Your task to perform on an android device: check battery use Image 0: 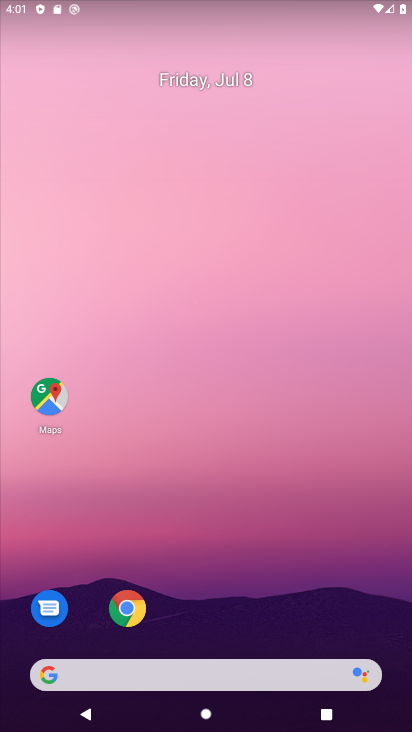
Step 0: press home button
Your task to perform on an android device: check battery use Image 1: 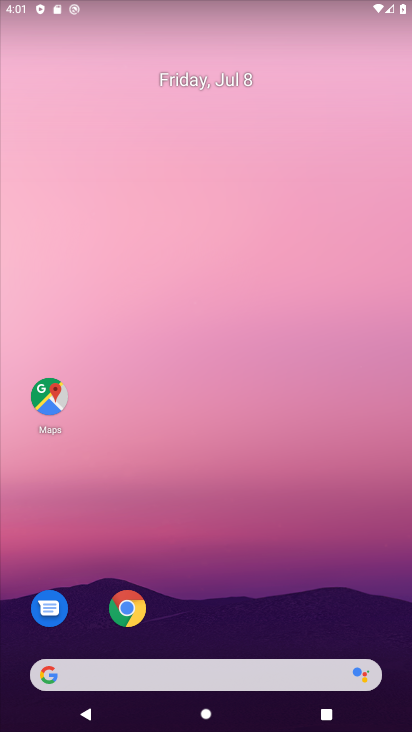
Step 1: drag from (216, 636) to (276, 157)
Your task to perform on an android device: check battery use Image 2: 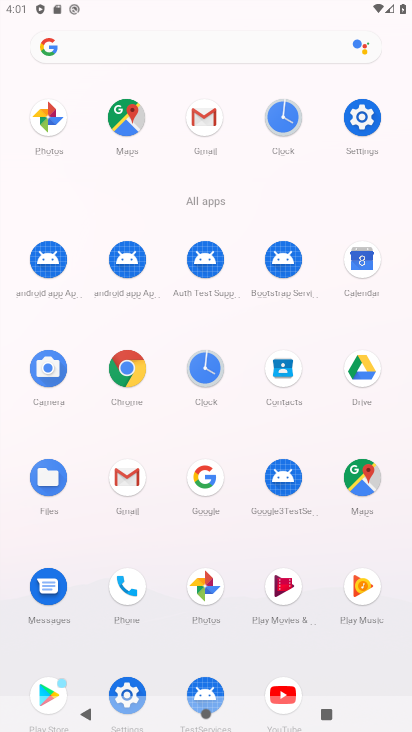
Step 2: click (356, 116)
Your task to perform on an android device: check battery use Image 3: 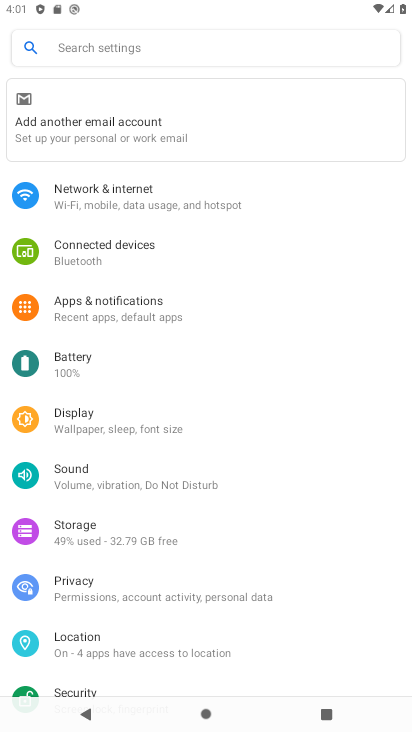
Step 3: click (98, 358)
Your task to perform on an android device: check battery use Image 4: 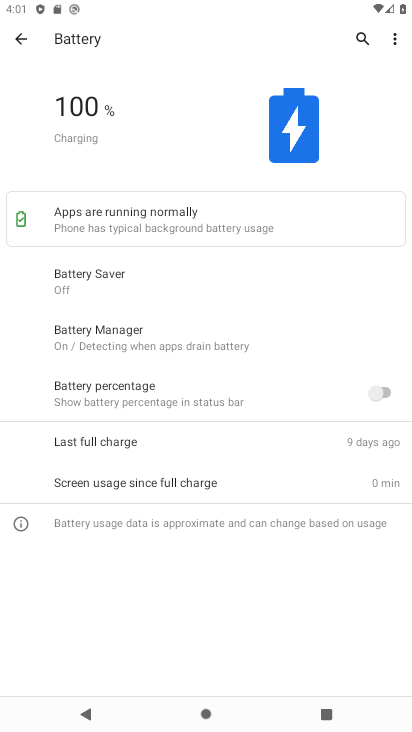
Step 4: click (394, 41)
Your task to perform on an android device: check battery use Image 5: 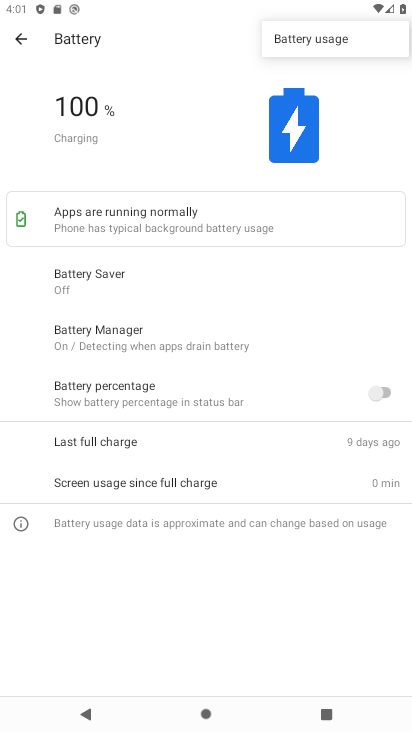
Step 5: click (328, 38)
Your task to perform on an android device: check battery use Image 6: 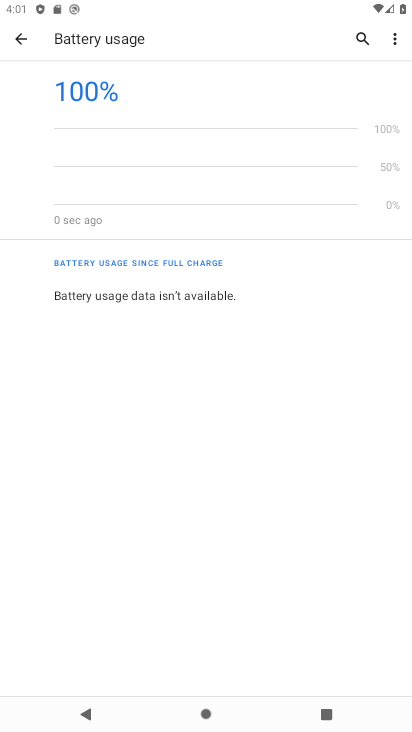
Step 6: task complete